Your task to perform on an android device: check google app version Image 0: 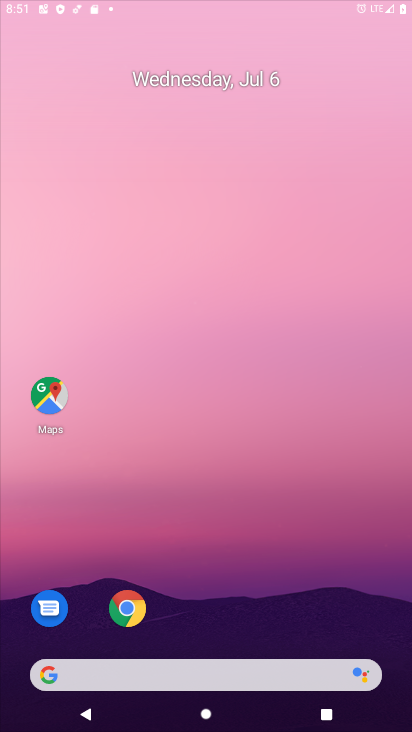
Step 0: drag from (357, 622) to (225, 67)
Your task to perform on an android device: check google app version Image 1: 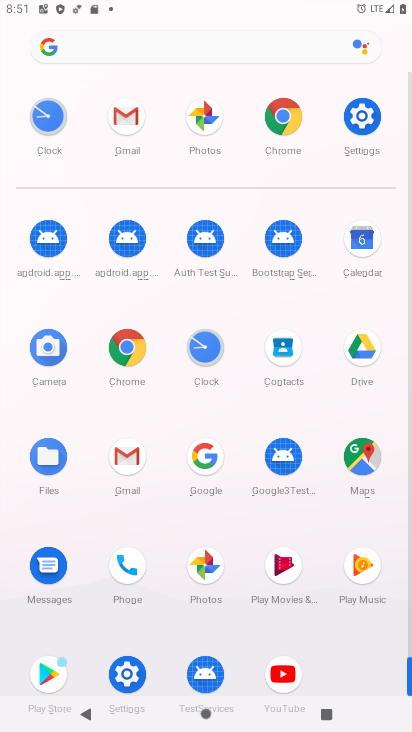
Step 1: click (199, 462)
Your task to perform on an android device: check google app version Image 2: 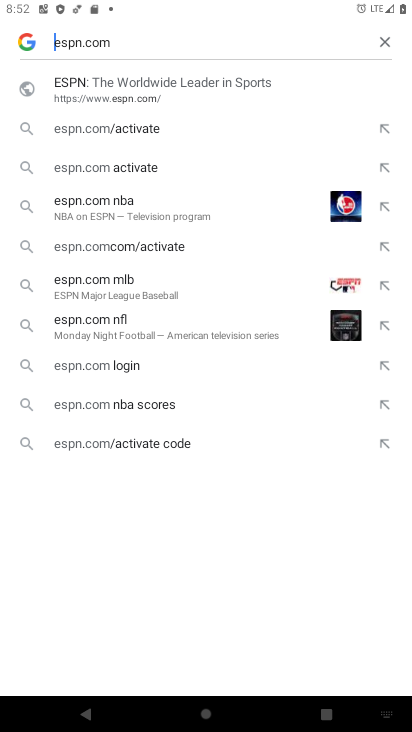
Step 2: click (386, 36)
Your task to perform on an android device: check google app version Image 3: 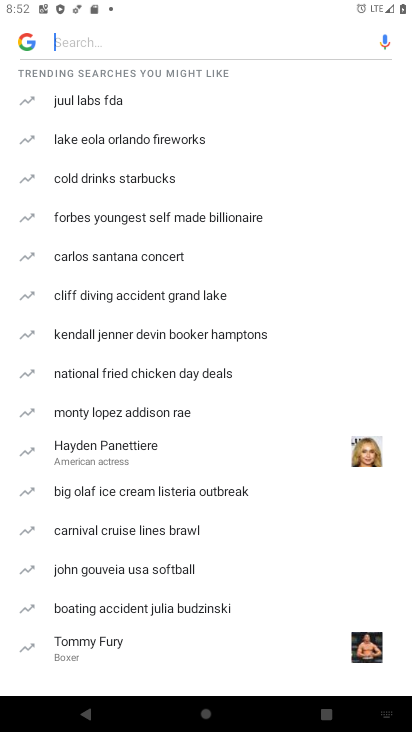
Step 3: press home button
Your task to perform on an android device: check google app version Image 4: 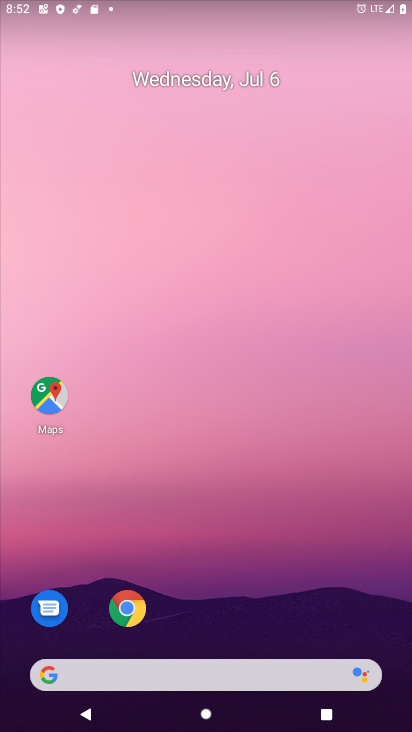
Step 4: drag from (390, 641) to (321, 45)
Your task to perform on an android device: check google app version Image 5: 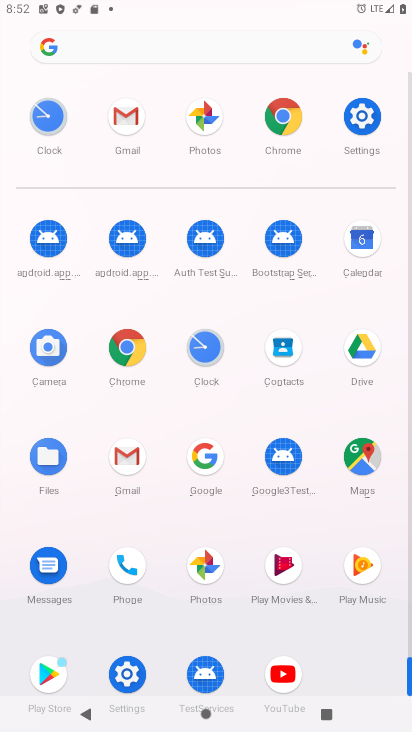
Step 5: click (214, 451)
Your task to perform on an android device: check google app version Image 6: 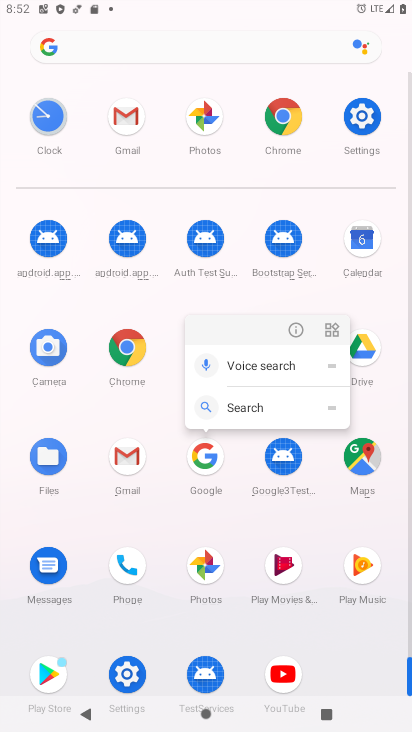
Step 6: click (296, 334)
Your task to perform on an android device: check google app version Image 7: 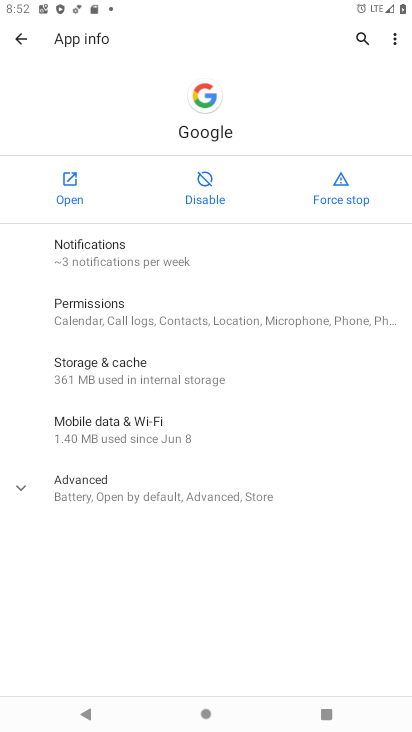
Step 7: click (115, 499)
Your task to perform on an android device: check google app version Image 8: 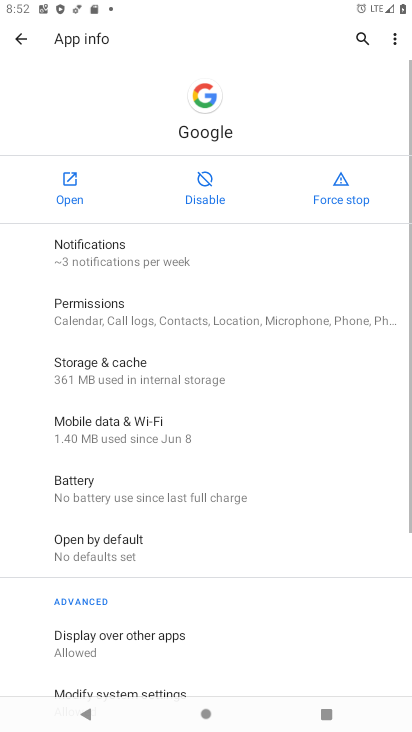
Step 8: task complete